Your task to perform on an android device: check google app version Image 0: 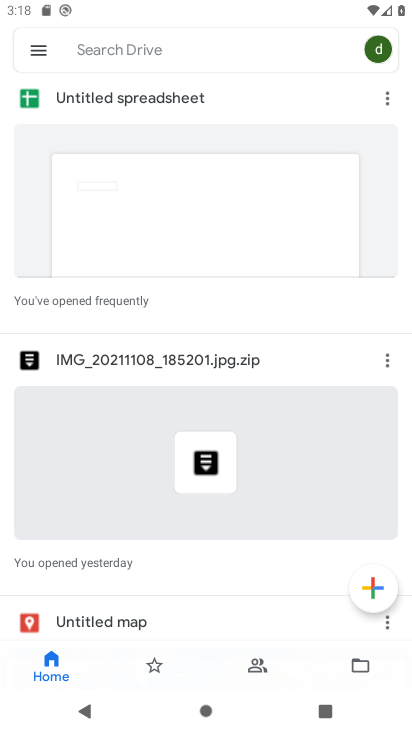
Step 0: press home button
Your task to perform on an android device: check google app version Image 1: 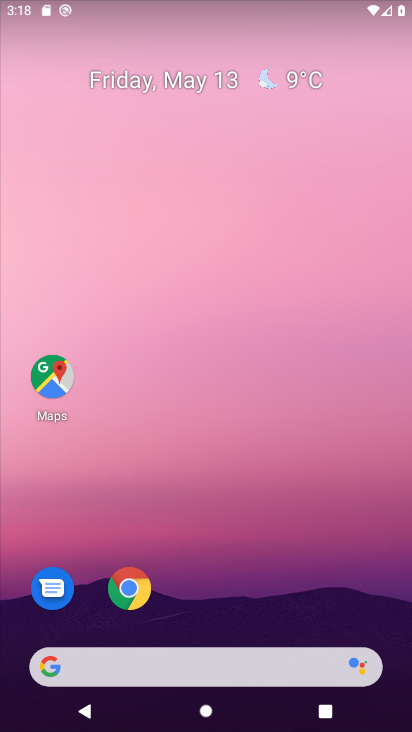
Step 1: drag from (371, 545) to (275, 91)
Your task to perform on an android device: check google app version Image 2: 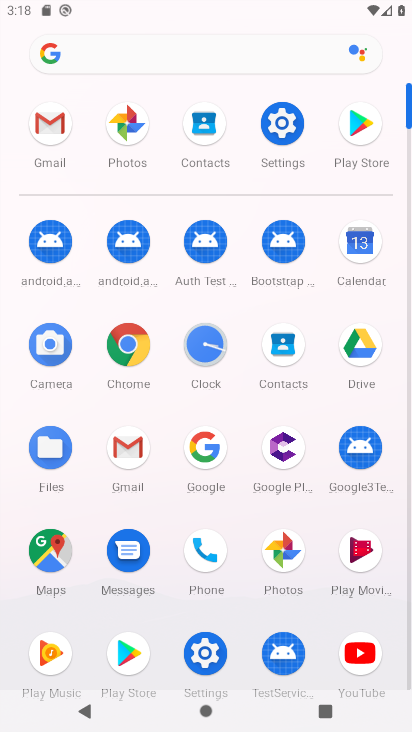
Step 2: click (206, 459)
Your task to perform on an android device: check google app version Image 3: 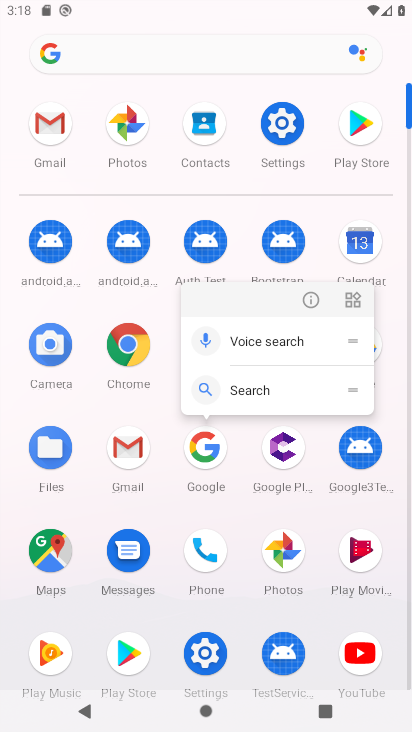
Step 3: click (308, 298)
Your task to perform on an android device: check google app version Image 4: 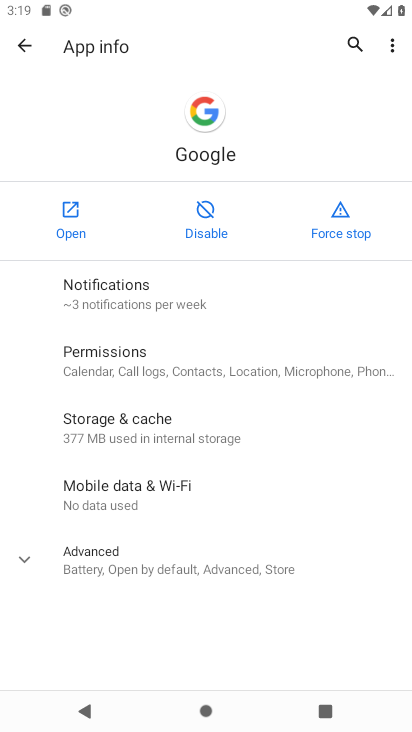
Step 4: click (163, 570)
Your task to perform on an android device: check google app version Image 5: 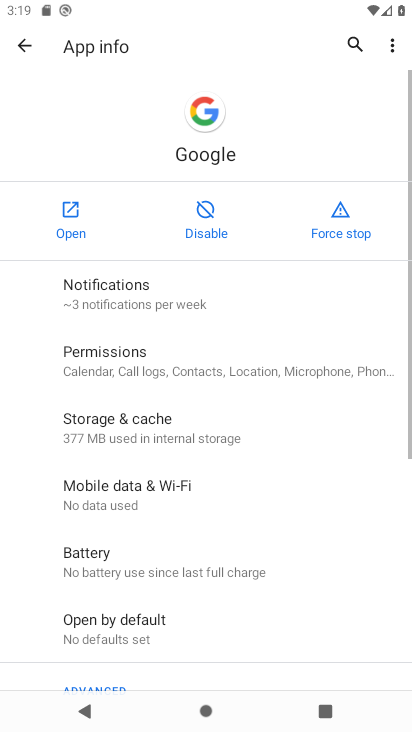
Step 5: task complete